Your task to perform on an android device: Turn on the flashlight Image 0: 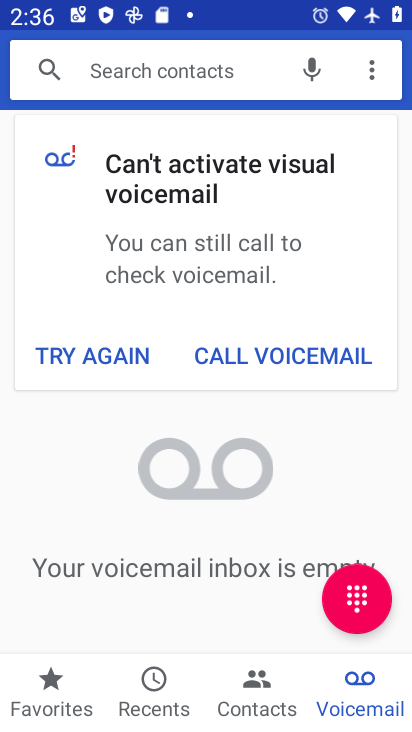
Step 0: press home button
Your task to perform on an android device: Turn on the flashlight Image 1: 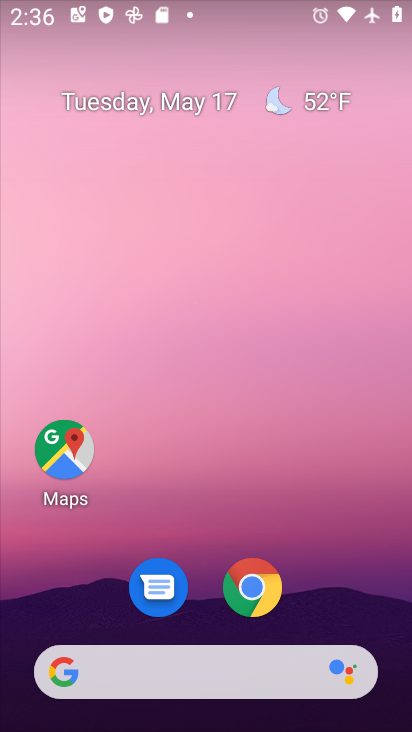
Step 1: drag from (316, 555) to (325, 11)
Your task to perform on an android device: Turn on the flashlight Image 2: 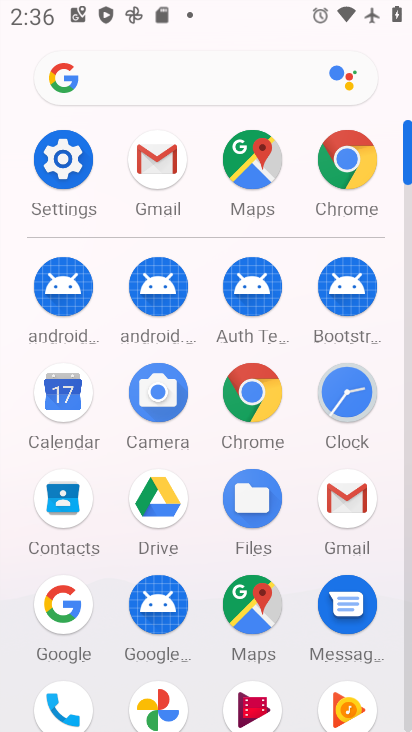
Step 2: click (54, 170)
Your task to perform on an android device: Turn on the flashlight Image 3: 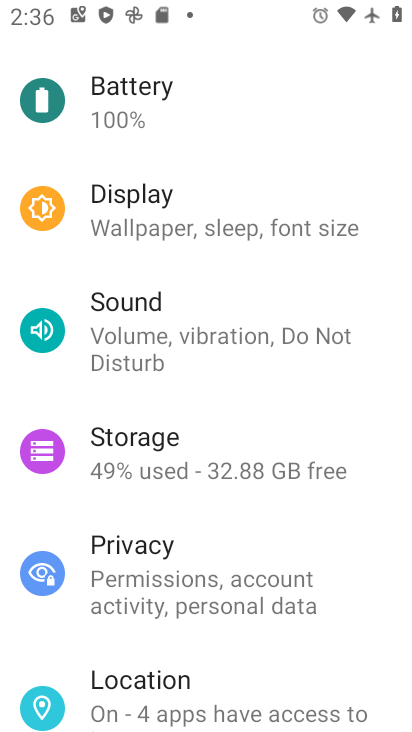
Step 3: click (177, 547)
Your task to perform on an android device: Turn on the flashlight Image 4: 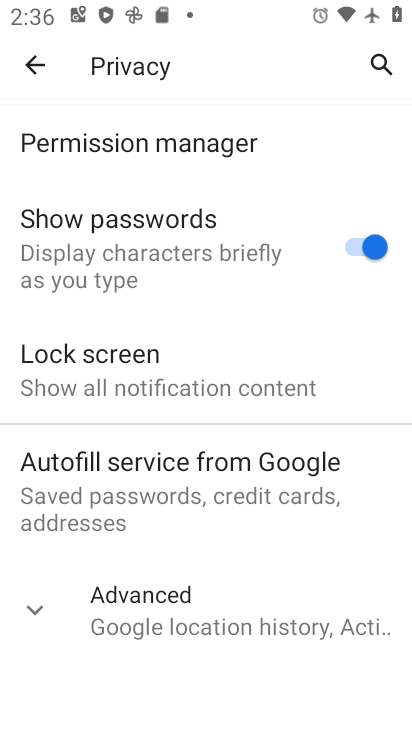
Step 4: task complete